Your task to perform on an android device: open app "Paramount+ | Peak Streaming" Image 0: 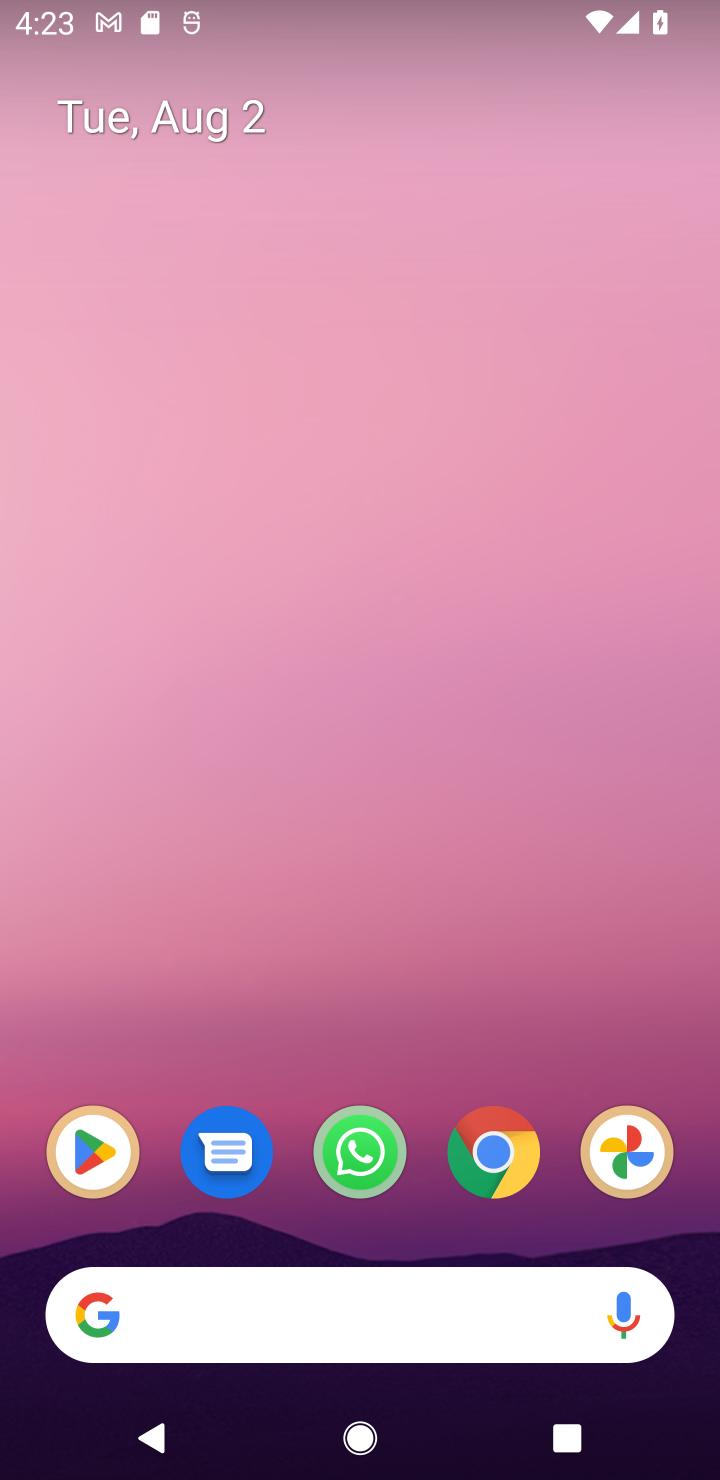
Step 0: drag from (562, 964) to (621, 10)
Your task to perform on an android device: open app "Paramount+ | Peak Streaming" Image 1: 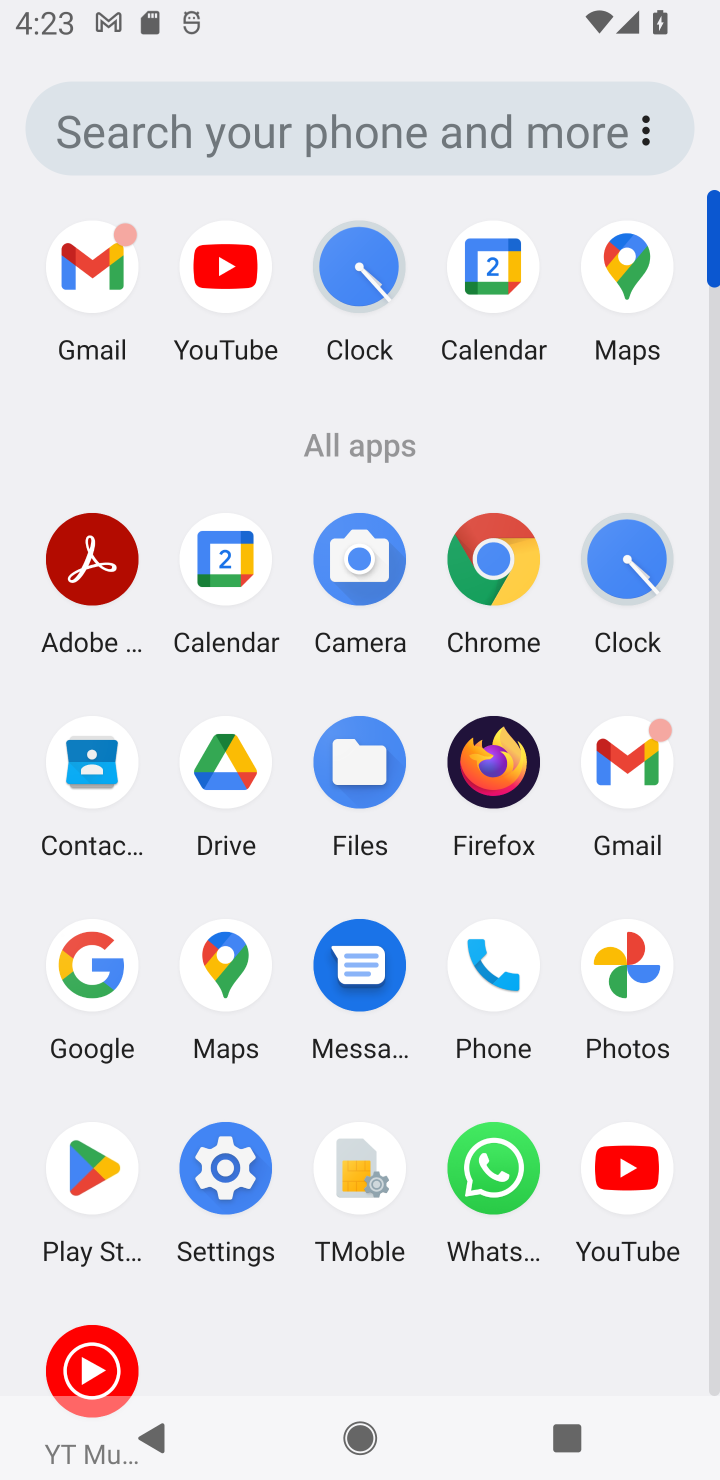
Step 1: click (75, 1163)
Your task to perform on an android device: open app "Paramount+ | Peak Streaming" Image 2: 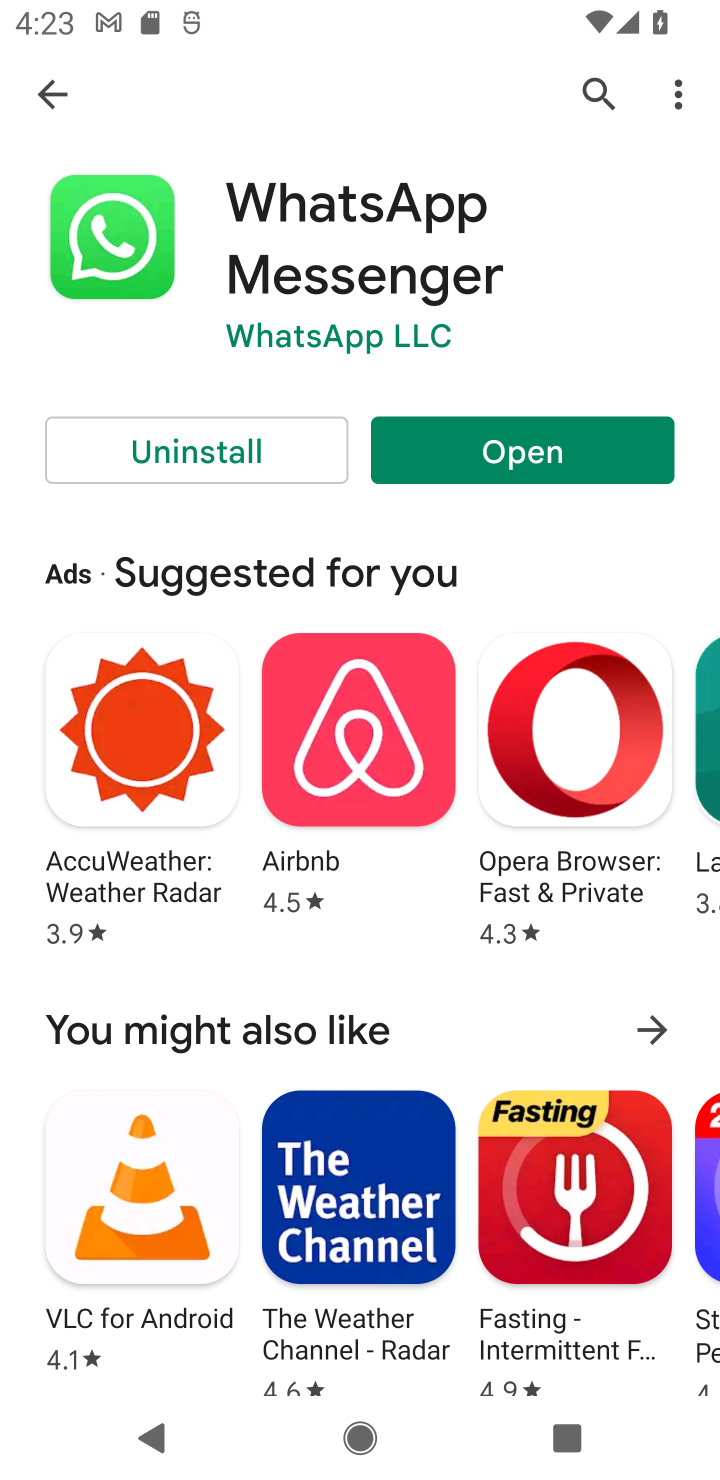
Step 2: click (577, 90)
Your task to perform on an android device: open app "Paramount+ | Peak Streaming" Image 3: 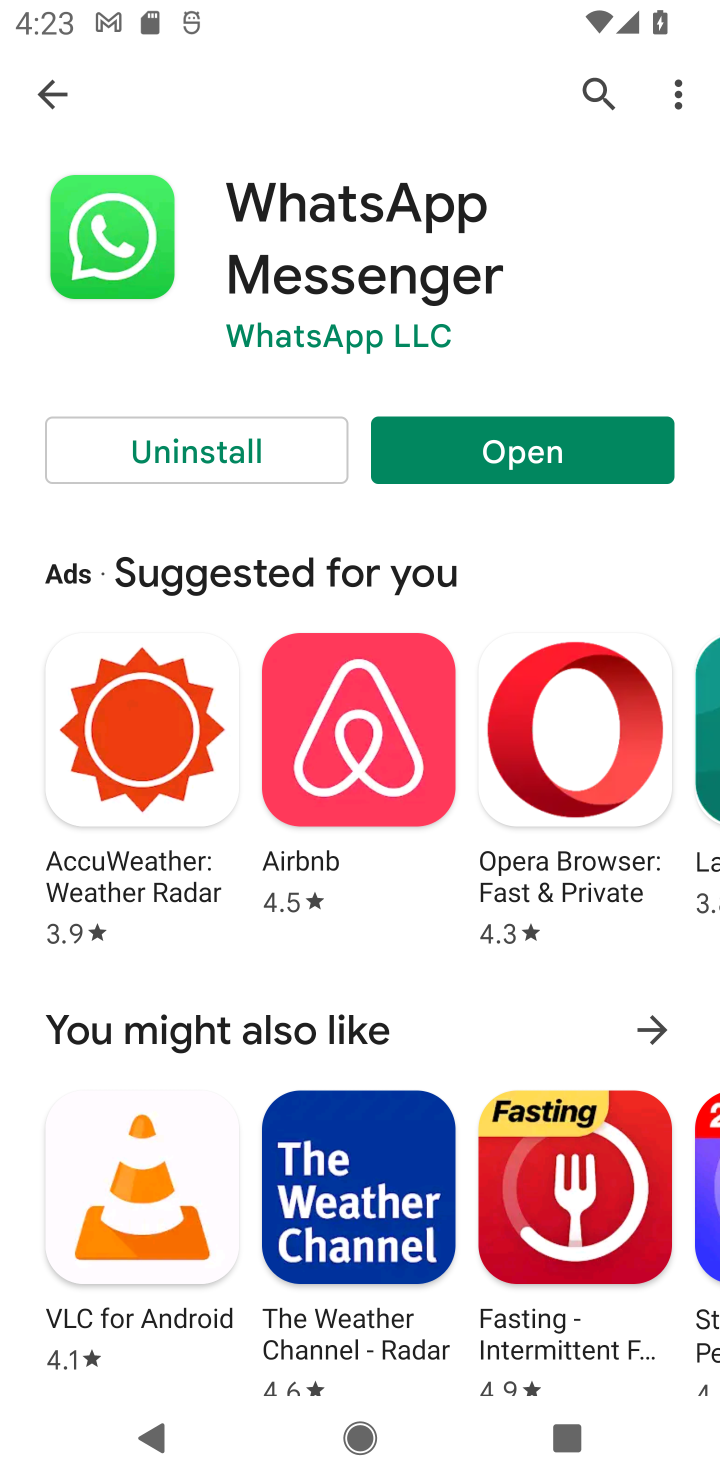
Step 3: click (595, 74)
Your task to perform on an android device: open app "Paramount+ | Peak Streaming" Image 4: 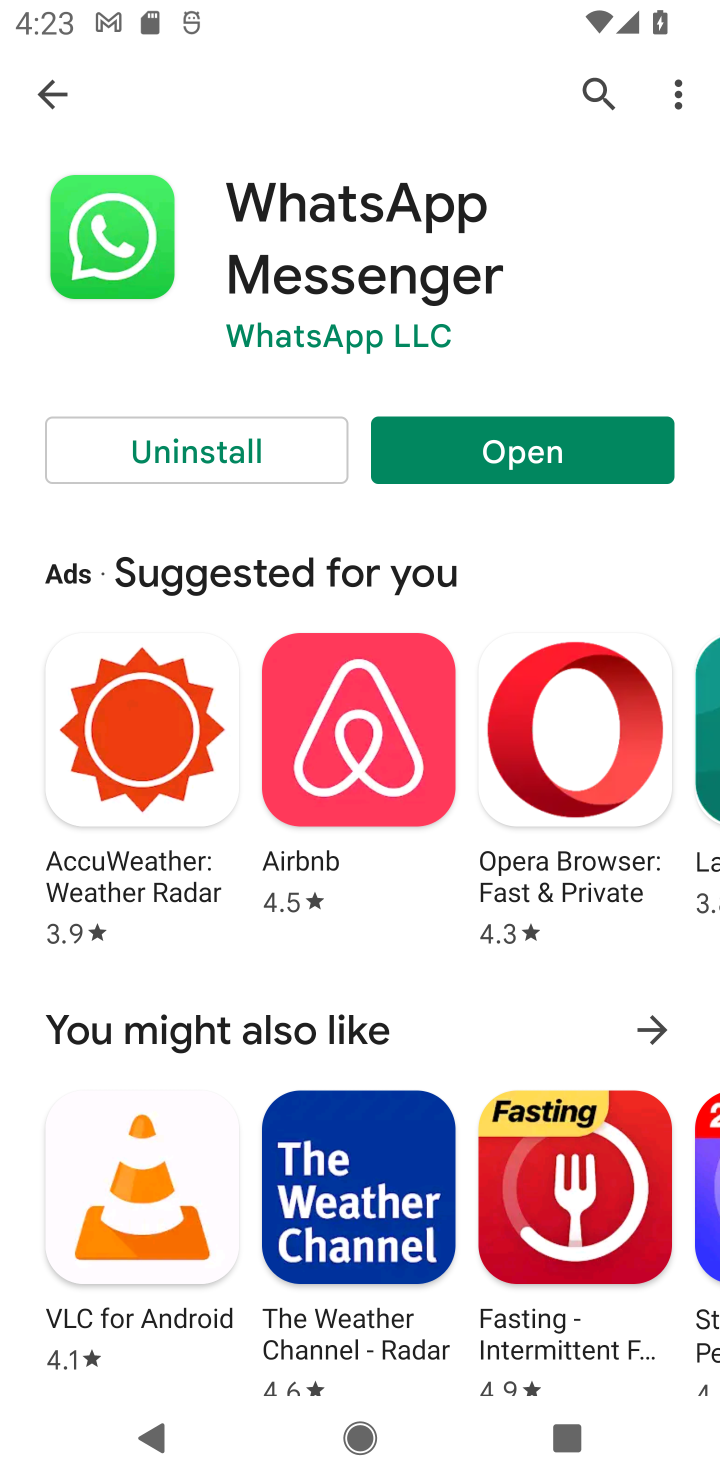
Step 4: click (600, 79)
Your task to perform on an android device: open app "Paramount+ | Peak Streaming" Image 5: 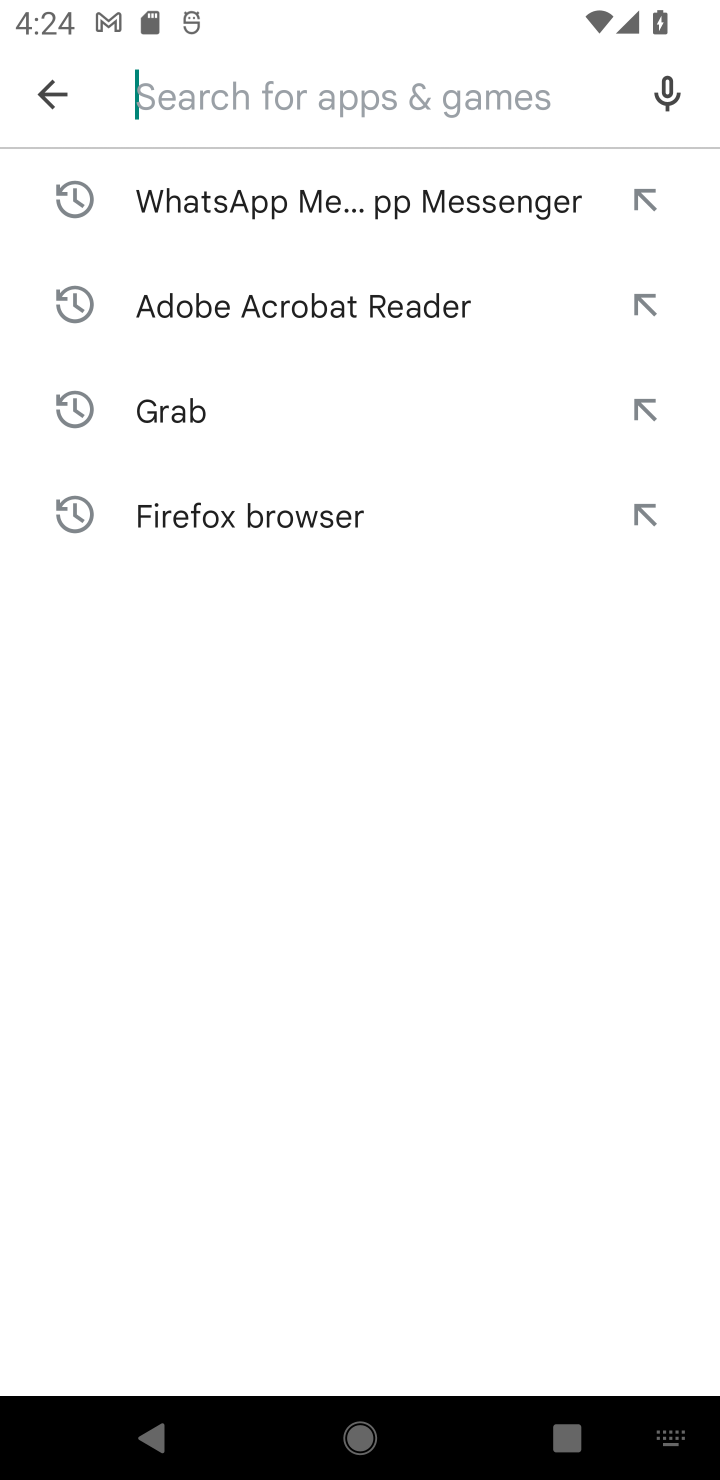
Step 5: type "Paramount+| Peak Streaming"
Your task to perform on an android device: open app "Paramount+ | Peak Streaming" Image 6: 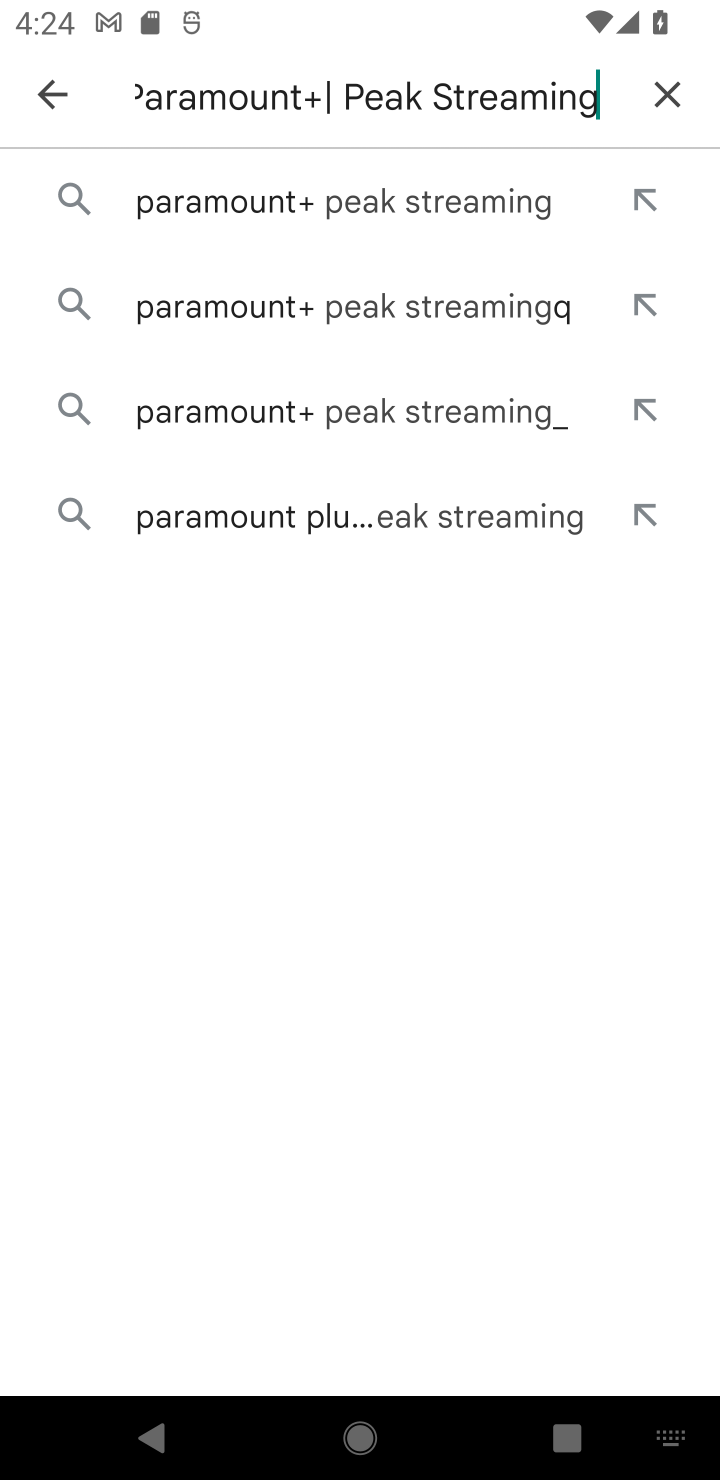
Step 6: press enter
Your task to perform on an android device: open app "Paramount+ | Peak Streaming" Image 7: 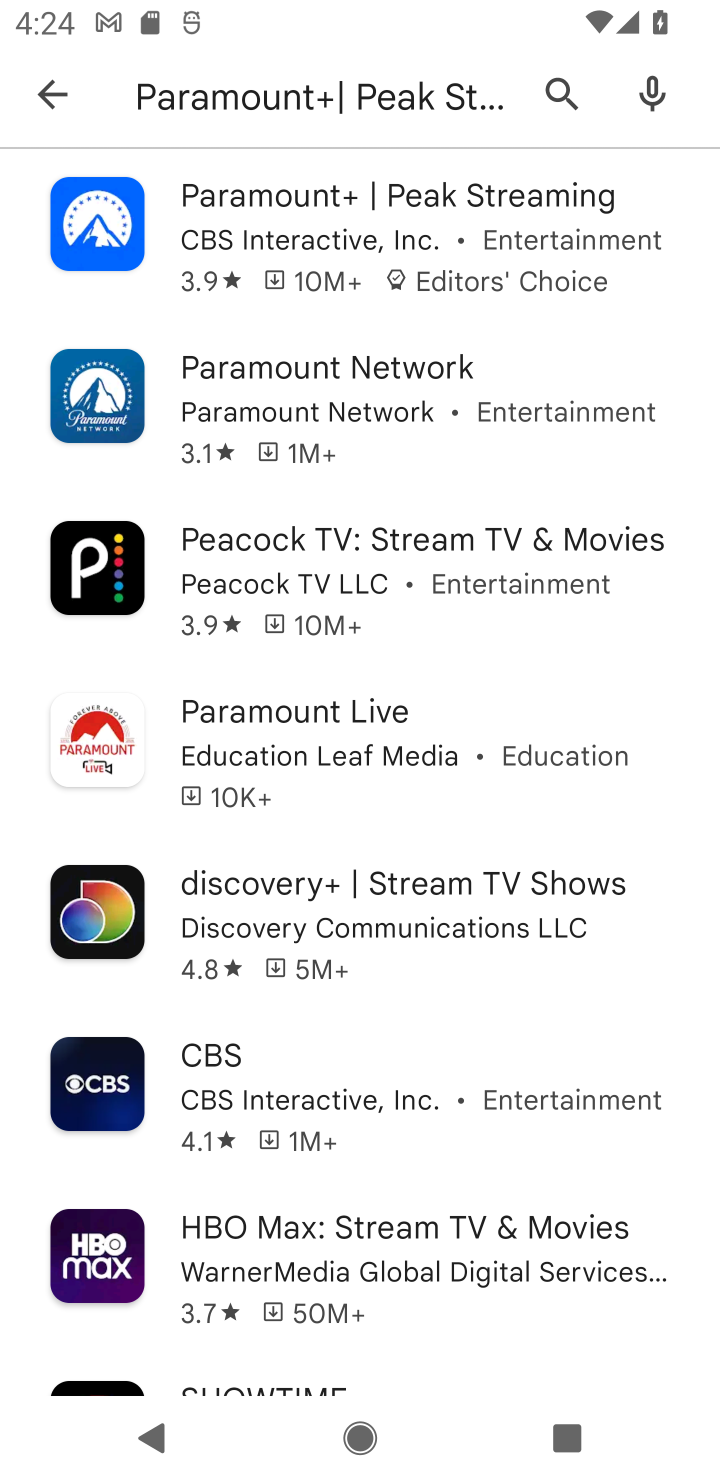
Step 7: click (315, 184)
Your task to perform on an android device: open app "Paramount+ | Peak Streaming" Image 8: 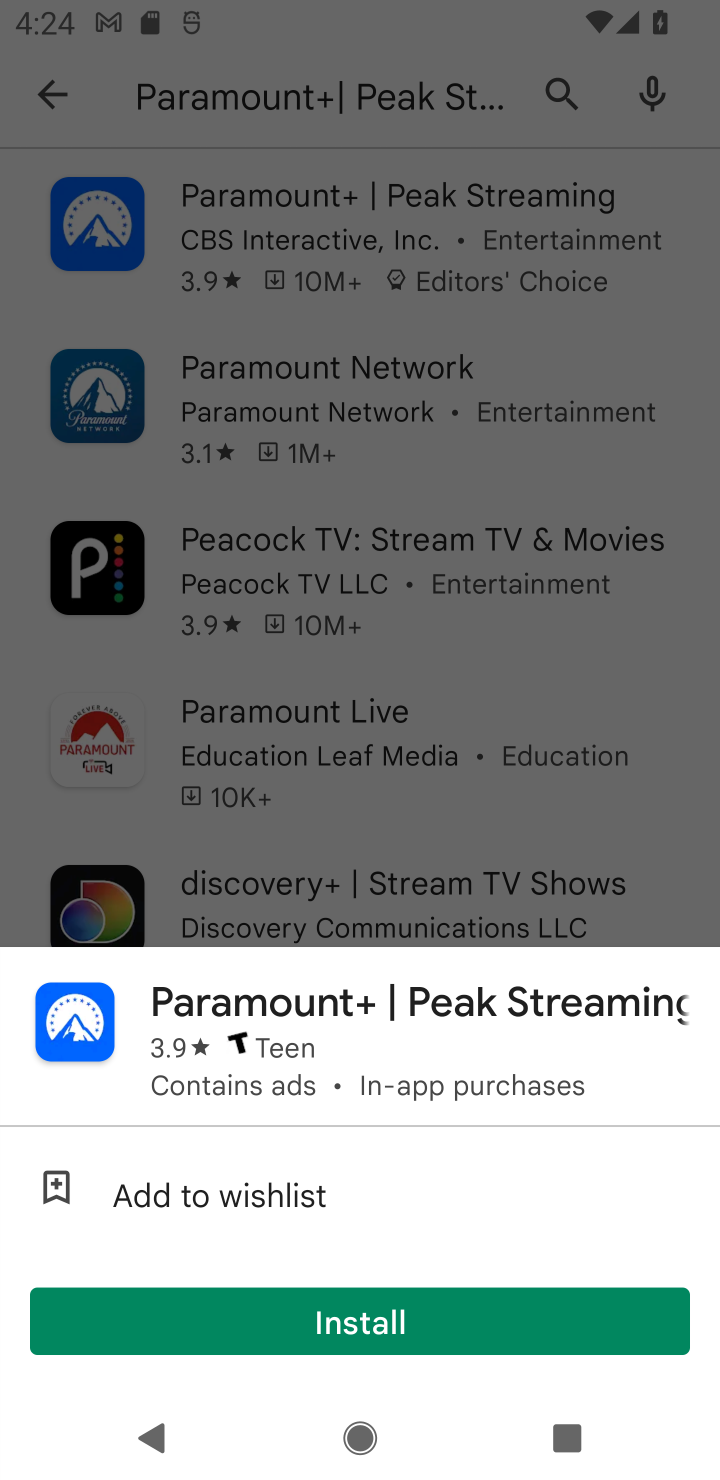
Step 8: task complete